Your task to perform on an android device: turn on the 12-hour format for clock Image 0: 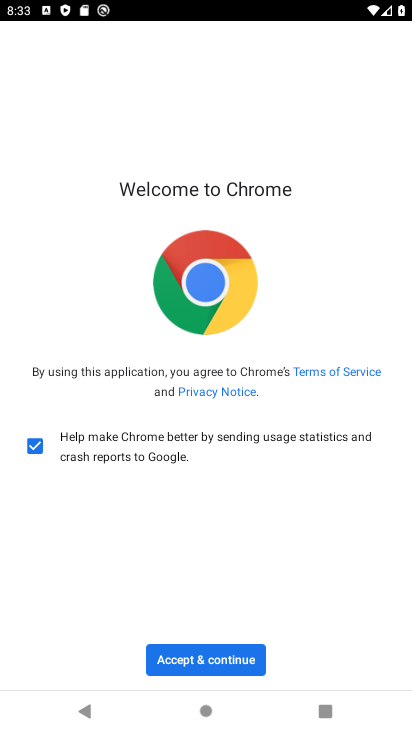
Step 0: press home button
Your task to perform on an android device: turn on the 12-hour format for clock Image 1: 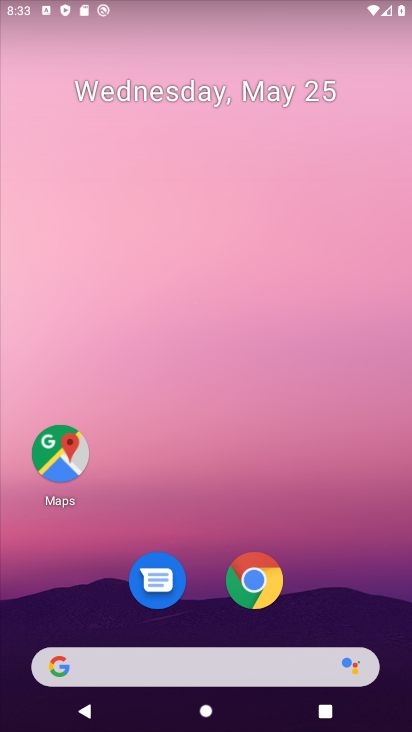
Step 1: drag from (47, 439) to (205, 136)
Your task to perform on an android device: turn on the 12-hour format for clock Image 2: 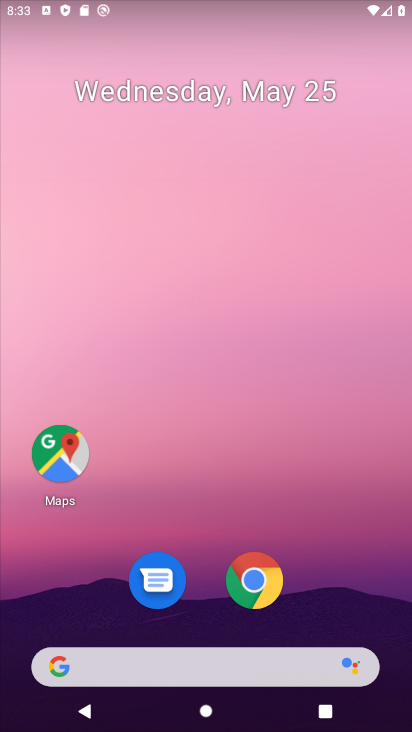
Step 2: press home button
Your task to perform on an android device: turn on the 12-hour format for clock Image 3: 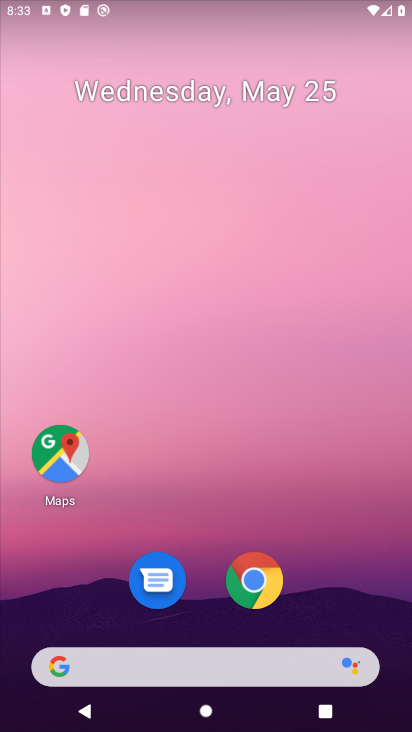
Step 3: drag from (24, 452) to (177, 224)
Your task to perform on an android device: turn on the 12-hour format for clock Image 4: 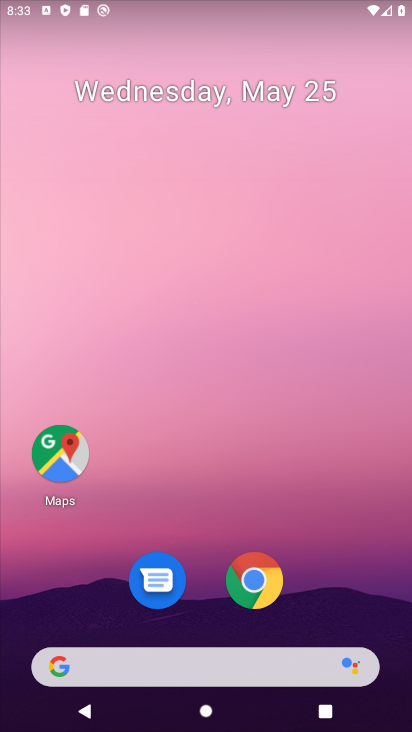
Step 4: drag from (73, 478) to (273, 93)
Your task to perform on an android device: turn on the 12-hour format for clock Image 5: 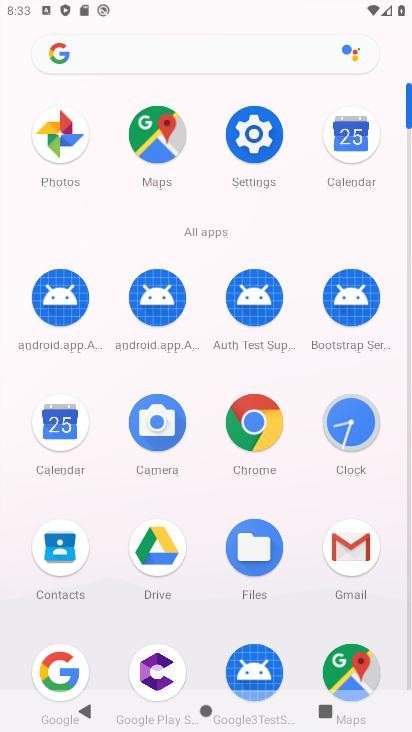
Step 5: click (363, 431)
Your task to perform on an android device: turn on the 12-hour format for clock Image 6: 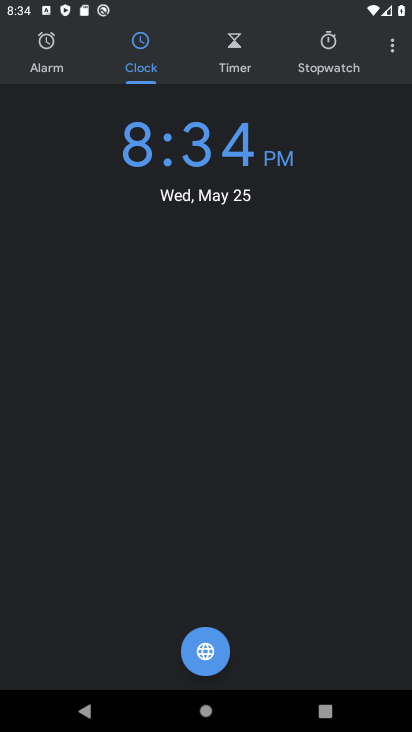
Step 6: click (394, 48)
Your task to perform on an android device: turn on the 12-hour format for clock Image 7: 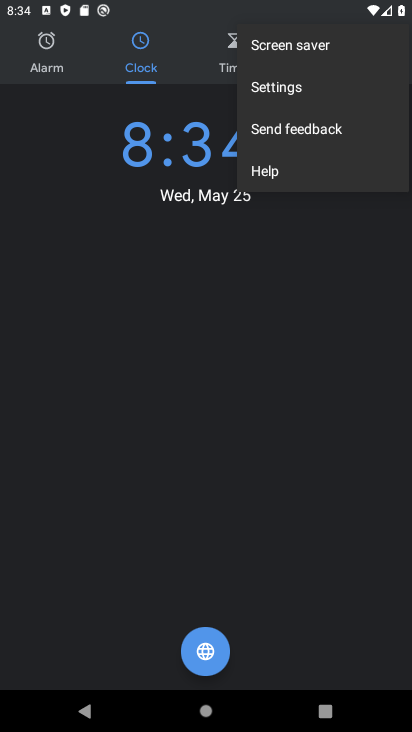
Step 7: click (355, 88)
Your task to perform on an android device: turn on the 12-hour format for clock Image 8: 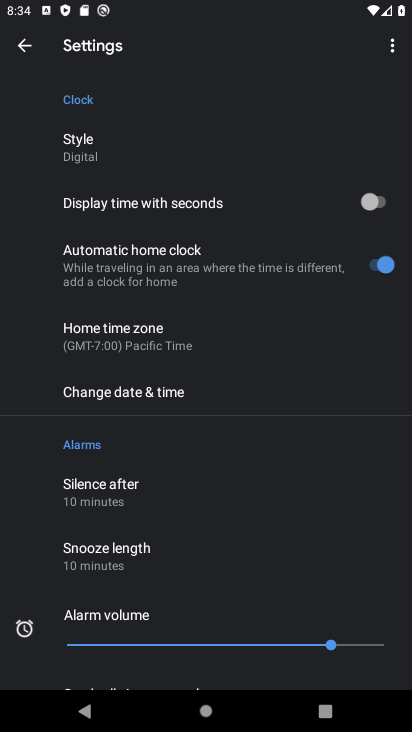
Step 8: click (104, 392)
Your task to perform on an android device: turn on the 12-hour format for clock Image 9: 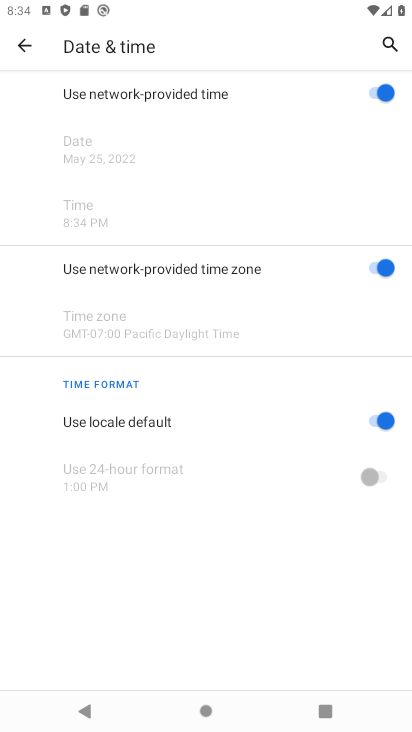
Step 9: task complete